Your task to perform on an android device: Go to Wikipedia Image 0: 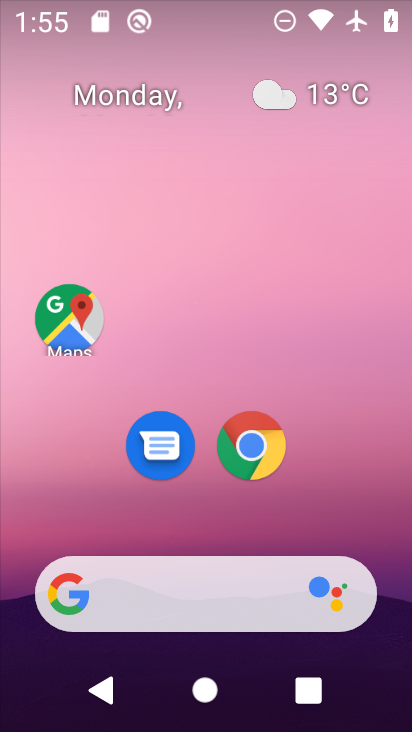
Step 0: drag from (396, 617) to (342, 80)
Your task to perform on an android device: Go to Wikipedia Image 1: 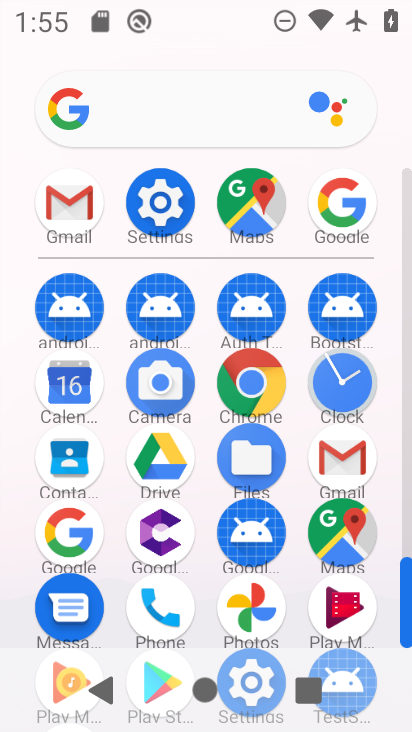
Step 1: click (233, 397)
Your task to perform on an android device: Go to Wikipedia Image 2: 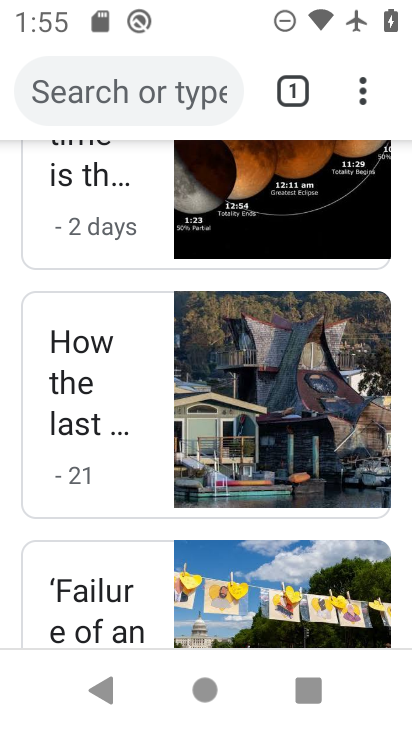
Step 2: drag from (185, 239) to (228, 560)
Your task to perform on an android device: Go to Wikipedia Image 3: 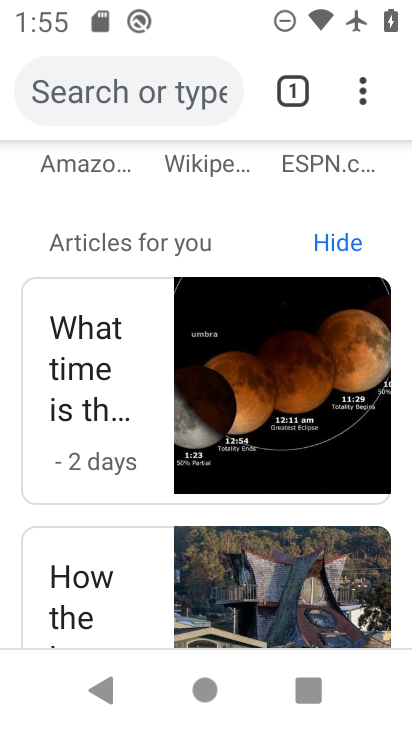
Step 3: drag from (198, 216) to (219, 478)
Your task to perform on an android device: Go to Wikipedia Image 4: 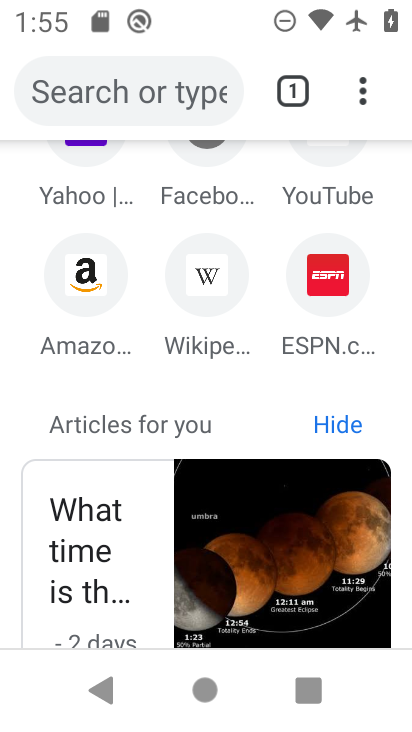
Step 4: click (213, 285)
Your task to perform on an android device: Go to Wikipedia Image 5: 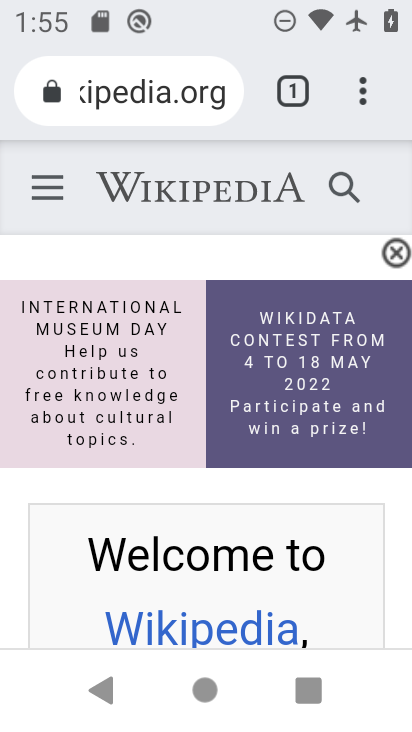
Step 5: task complete